Your task to perform on an android device: see creations saved in the google photos Image 0: 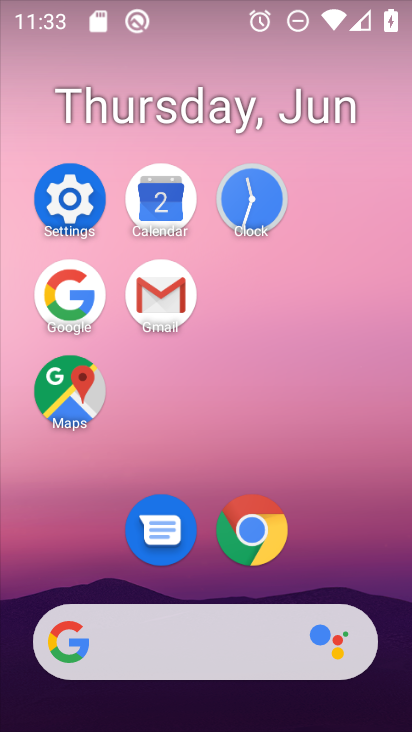
Step 0: drag from (348, 355) to (320, 91)
Your task to perform on an android device: see creations saved in the google photos Image 1: 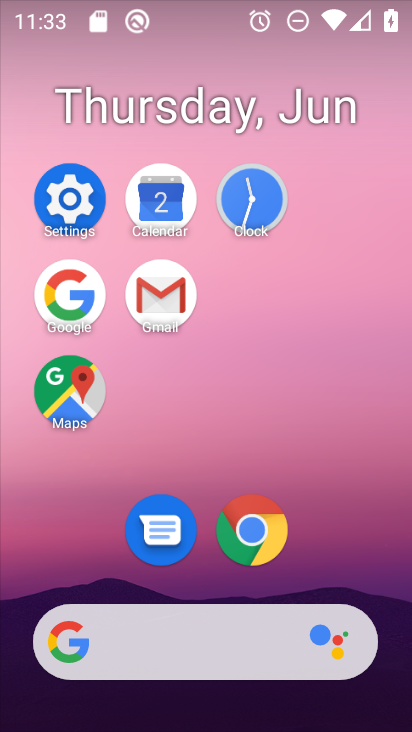
Step 1: drag from (324, 555) to (276, 99)
Your task to perform on an android device: see creations saved in the google photos Image 2: 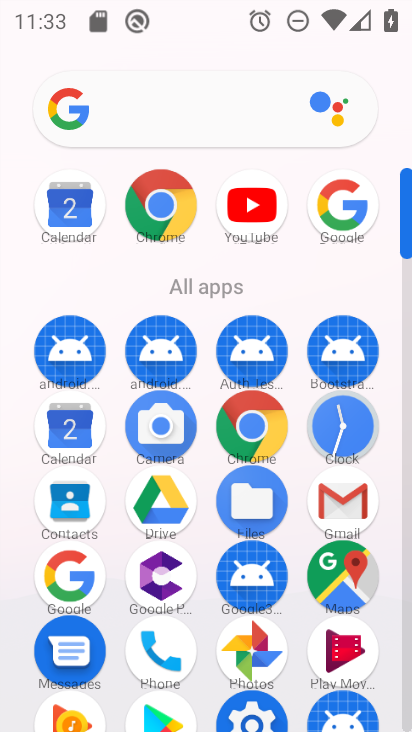
Step 2: drag from (239, 646) to (194, 356)
Your task to perform on an android device: see creations saved in the google photos Image 3: 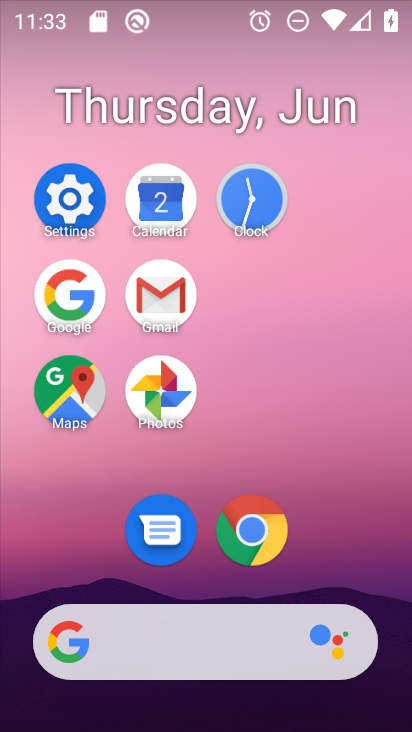
Step 3: click (137, 407)
Your task to perform on an android device: see creations saved in the google photos Image 4: 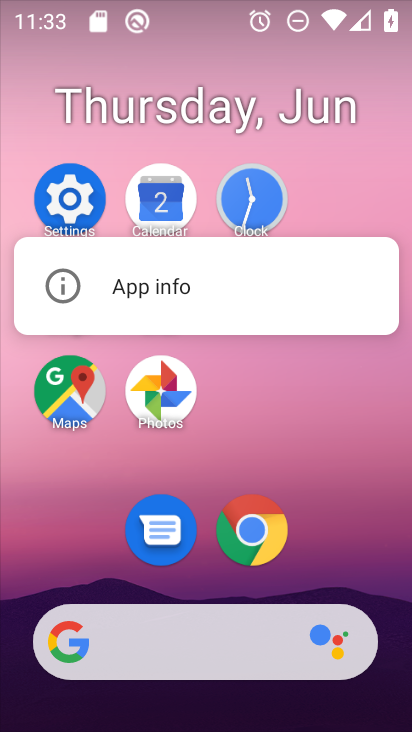
Step 4: click (137, 407)
Your task to perform on an android device: see creations saved in the google photos Image 5: 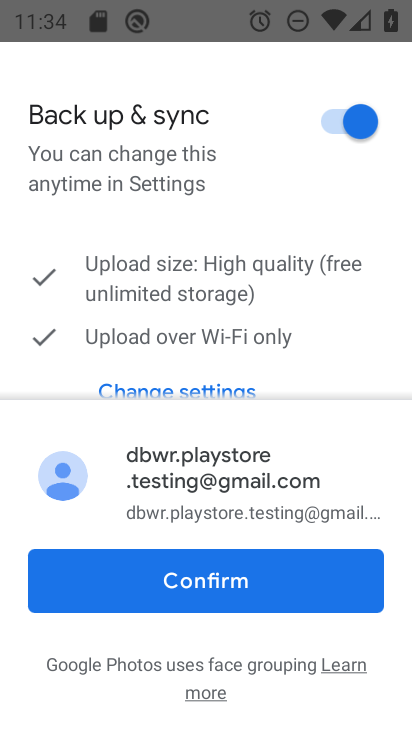
Step 5: click (220, 568)
Your task to perform on an android device: see creations saved in the google photos Image 6: 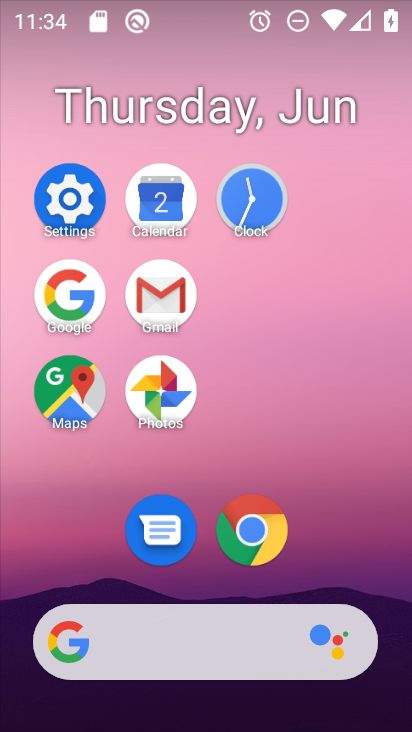
Step 6: click (176, 397)
Your task to perform on an android device: see creations saved in the google photos Image 7: 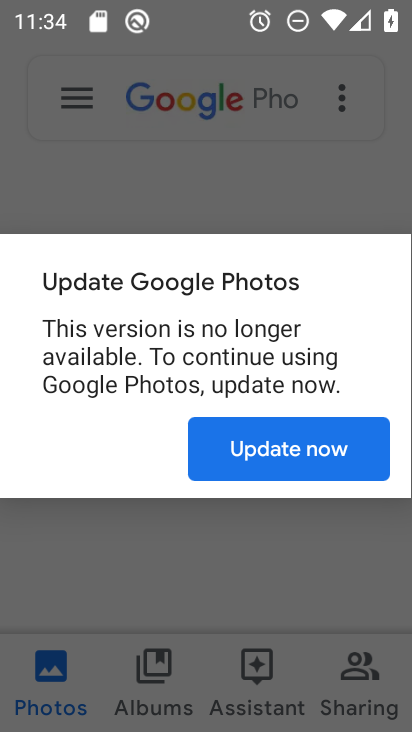
Step 7: click (315, 462)
Your task to perform on an android device: see creations saved in the google photos Image 8: 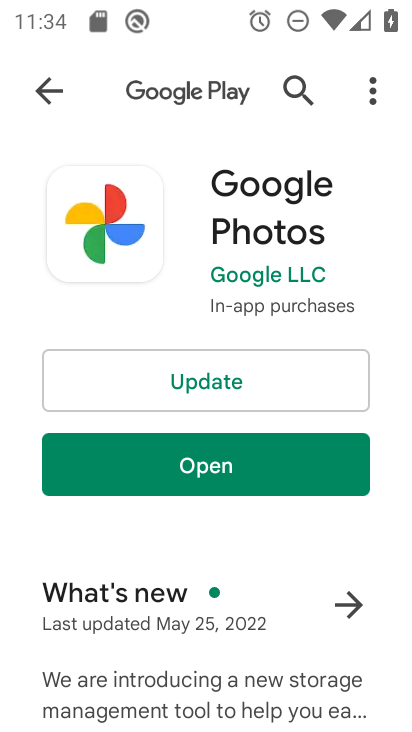
Step 8: click (249, 468)
Your task to perform on an android device: see creations saved in the google photos Image 9: 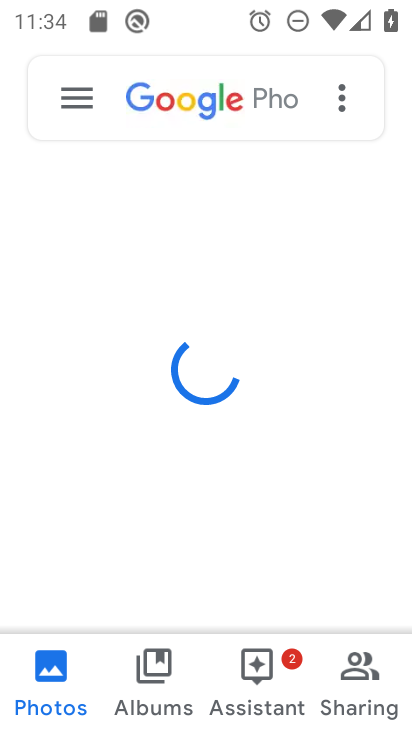
Step 9: click (215, 110)
Your task to perform on an android device: see creations saved in the google photos Image 10: 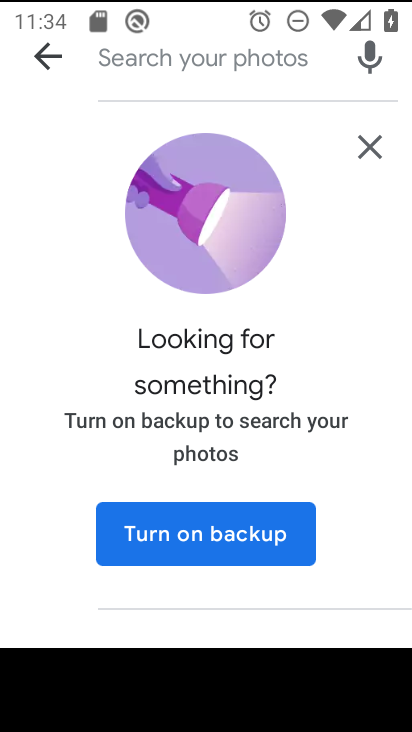
Step 10: click (371, 137)
Your task to perform on an android device: see creations saved in the google photos Image 11: 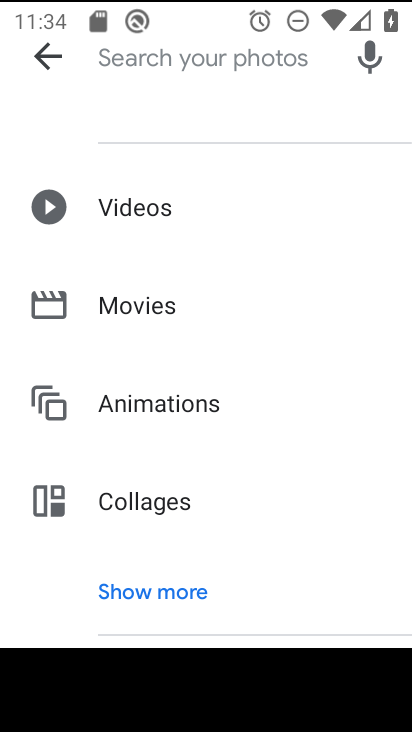
Step 11: drag from (168, 498) to (226, 150)
Your task to perform on an android device: see creations saved in the google photos Image 12: 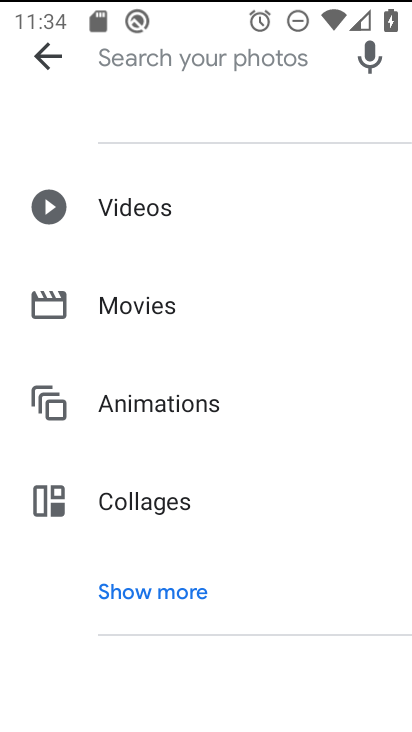
Step 12: click (165, 595)
Your task to perform on an android device: see creations saved in the google photos Image 13: 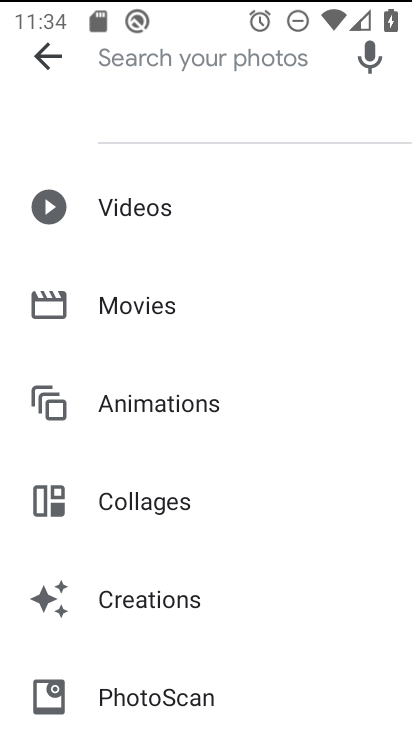
Step 13: click (165, 595)
Your task to perform on an android device: see creations saved in the google photos Image 14: 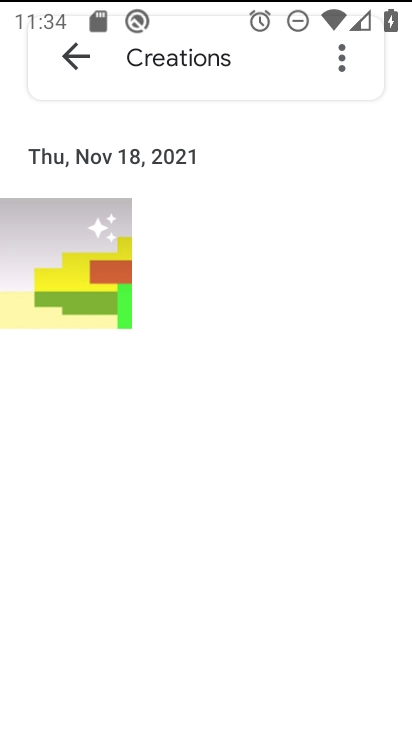
Step 14: task complete